Your task to perform on an android device: Open settings on Google Maps Image 0: 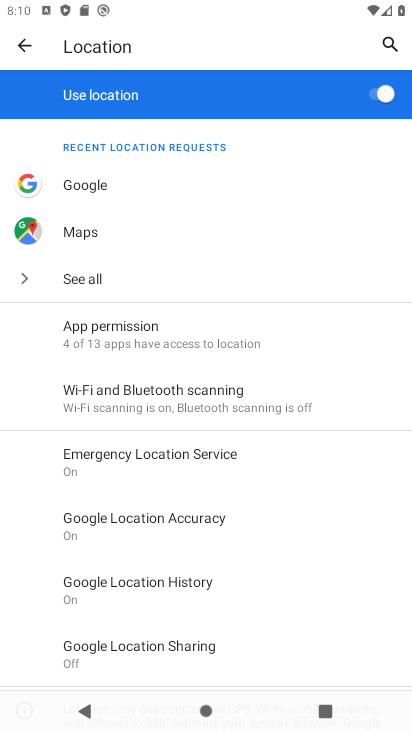
Step 0: press home button
Your task to perform on an android device: Open settings on Google Maps Image 1: 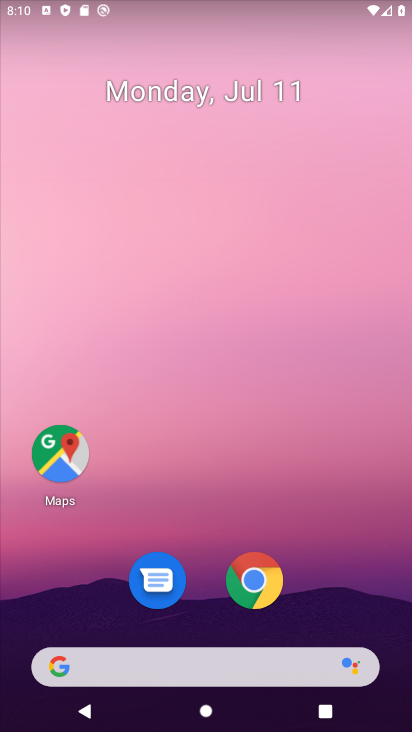
Step 1: click (59, 452)
Your task to perform on an android device: Open settings on Google Maps Image 2: 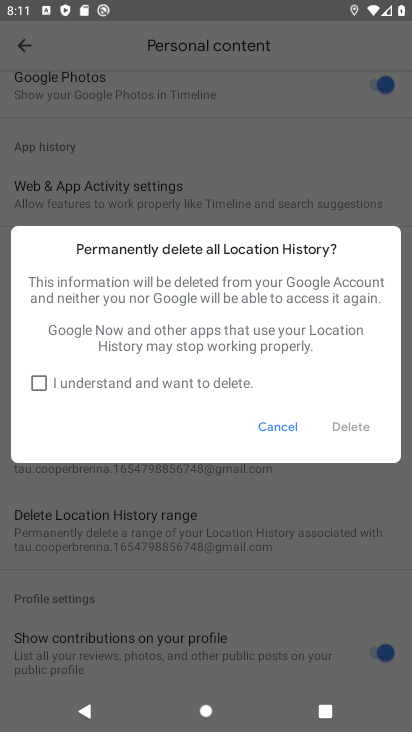
Step 2: click (277, 423)
Your task to perform on an android device: Open settings on Google Maps Image 3: 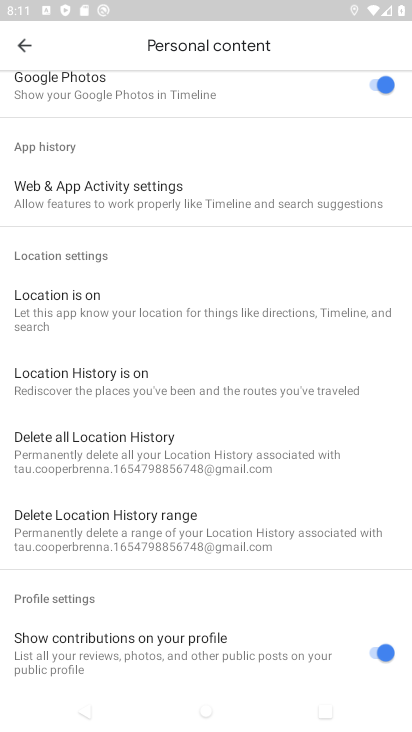
Step 3: click (32, 36)
Your task to perform on an android device: Open settings on Google Maps Image 4: 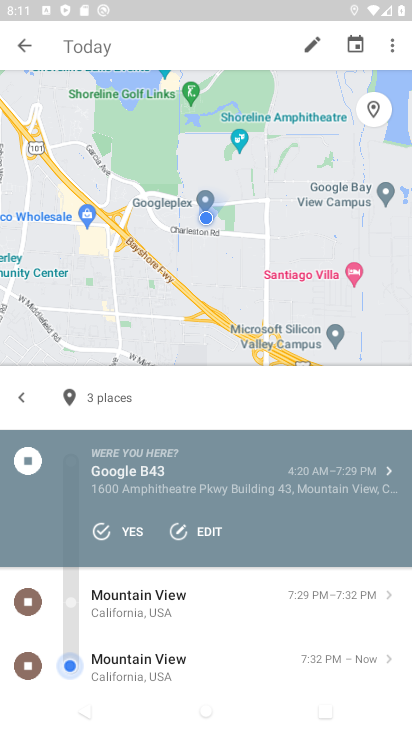
Step 4: click (25, 41)
Your task to perform on an android device: Open settings on Google Maps Image 5: 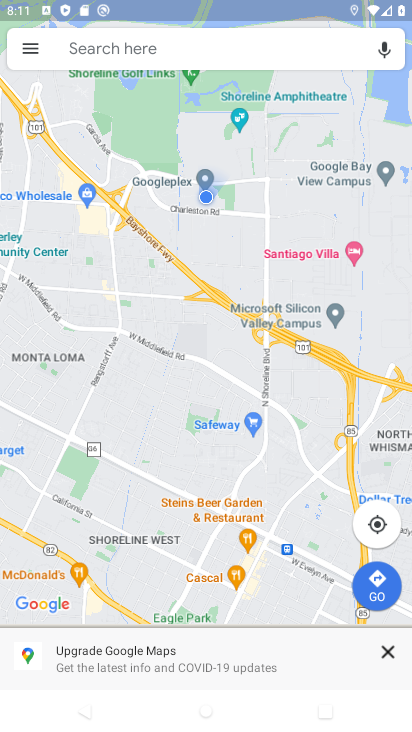
Step 5: click (33, 49)
Your task to perform on an android device: Open settings on Google Maps Image 6: 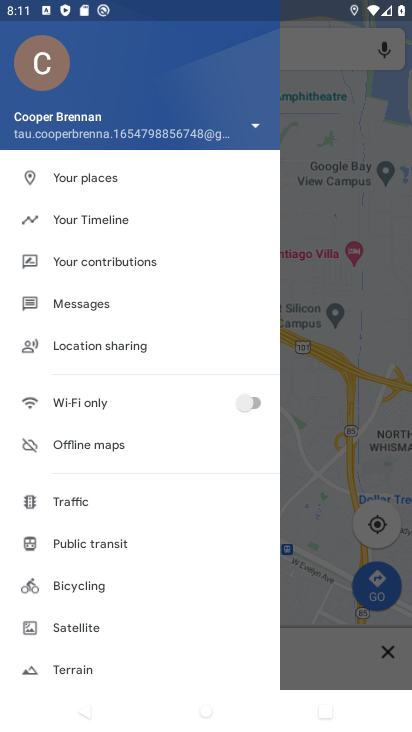
Step 6: drag from (146, 593) to (135, 236)
Your task to perform on an android device: Open settings on Google Maps Image 7: 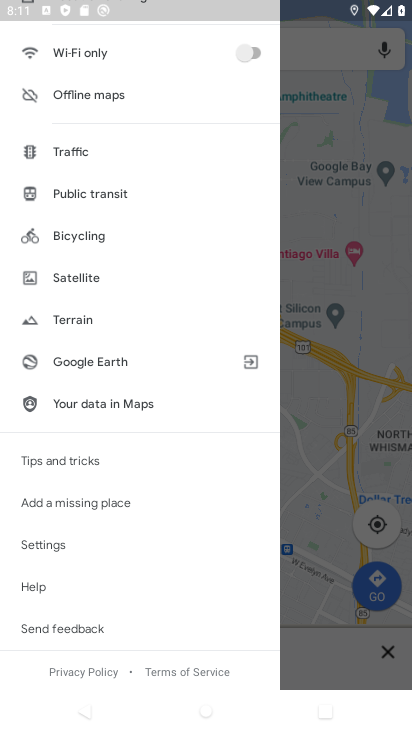
Step 7: click (56, 543)
Your task to perform on an android device: Open settings on Google Maps Image 8: 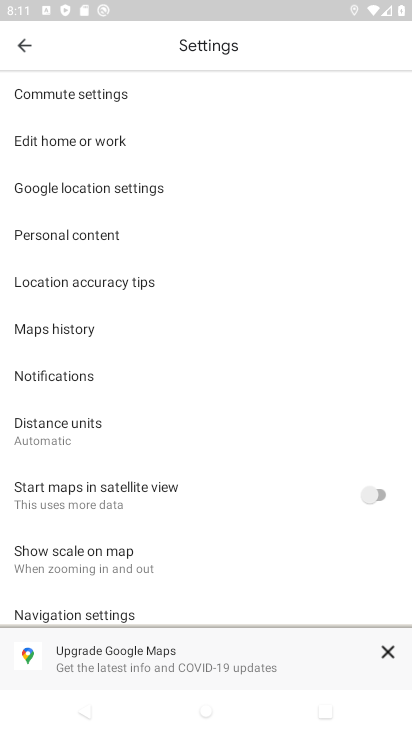
Step 8: task complete